Your task to perform on an android device: What's on my calendar tomorrow? Image 0: 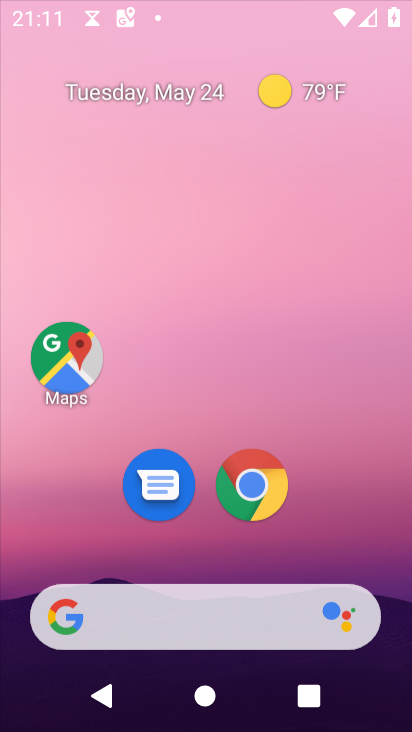
Step 0: press home button
Your task to perform on an android device: What's on my calendar tomorrow? Image 1: 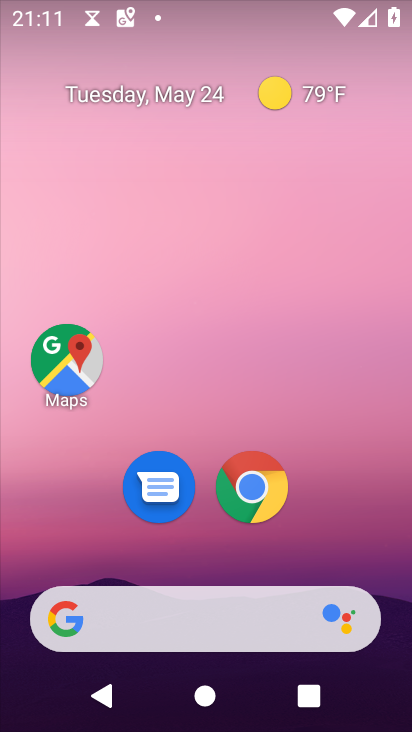
Step 1: drag from (334, 526) to (359, 9)
Your task to perform on an android device: What's on my calendar tomorrow? Image 2: 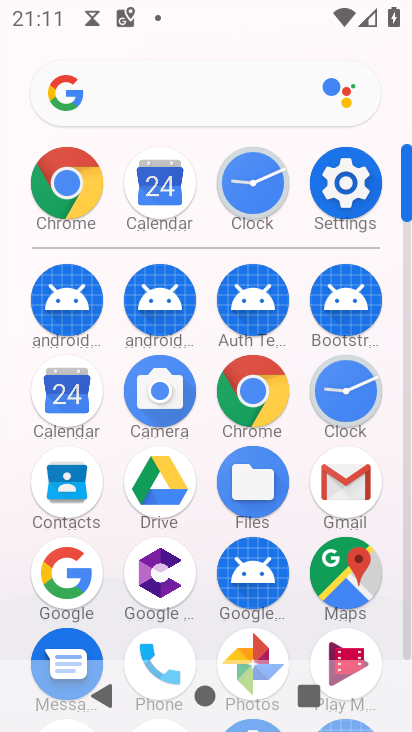
Step 2: click (66, 387)
Your task to perform on an android device: What's on my calendar tomorrow? Image 3: 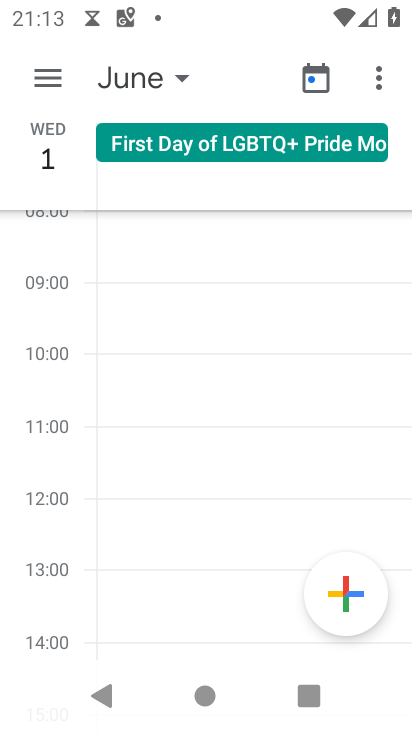
Step 3: click (181, 71)
Your task to perform on an android device: What's on my calendar tomorrow? Image 4: 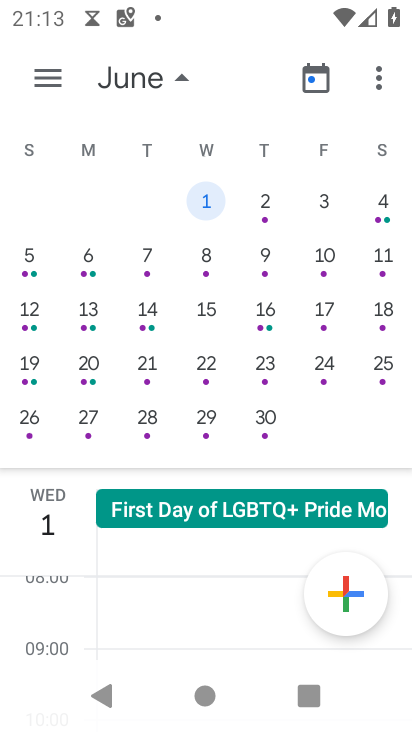
Step 4: drag from (332, 244) to (0, 236)
Your task to perform on an android device: What's on my calendar tomorrow? Image 5: 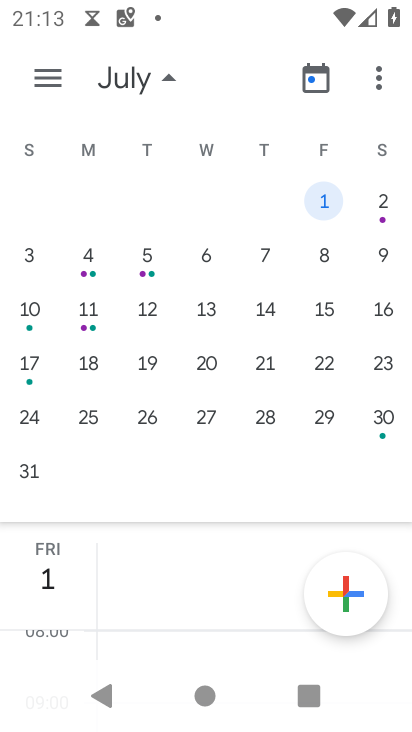
Step 5: drag from (10, 220) to (408, 266)
Your task to perform on an android device: What's on my calendar tomorrow? Image 6: 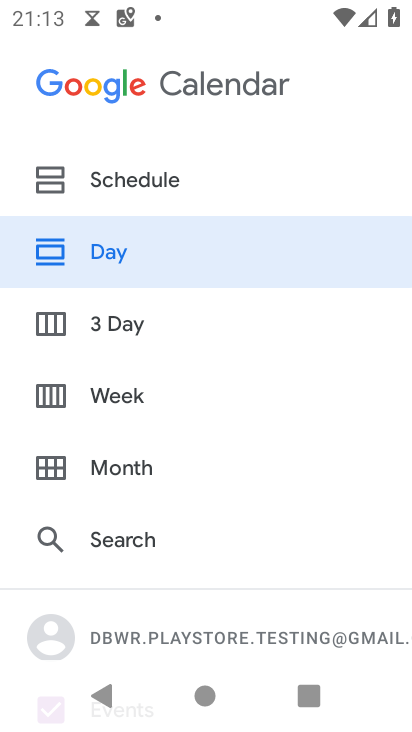
Step 6: drag from (342, 377) to (1, 451)
Your task to perform on an android device: What's on my calendar tomorrow? Image 7: 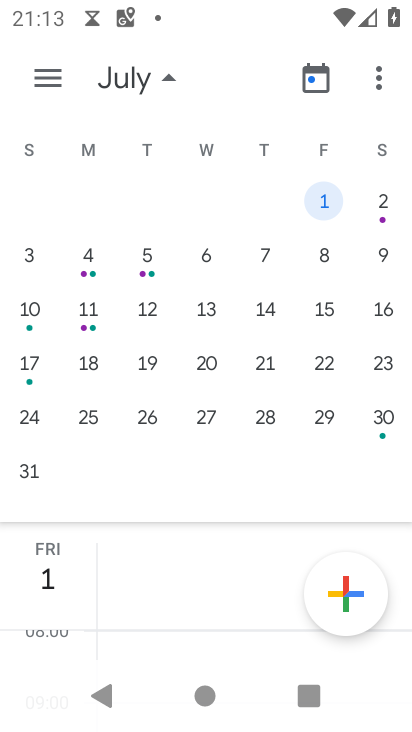
Step 7: drag from (116, 314) to (409, 311)
Your task to perform on an android device: What's on my calendar tomorrow? Image 8: 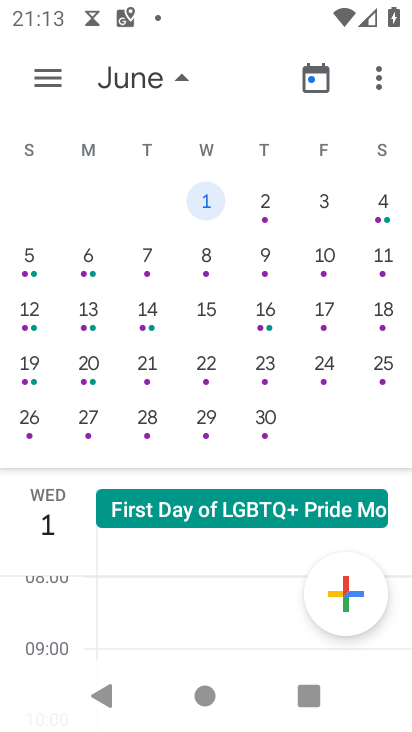
Step 8: click (10, 257)
Your task to perform on an android device: What's on my calendar tomorrow? Image 9: 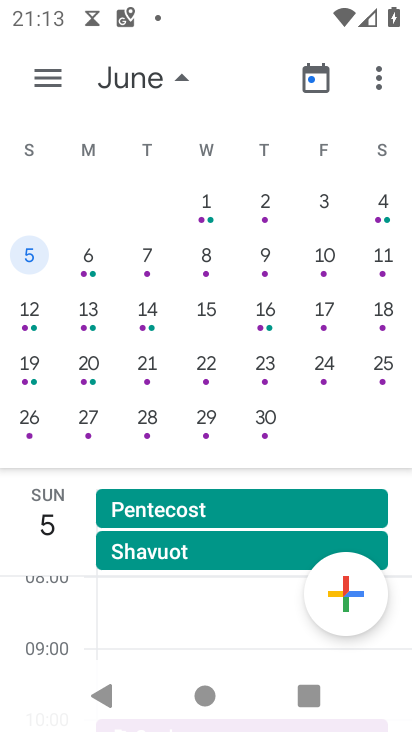
Step 9: drag from (52, 278) to (363, 236)
Your task to perform on an android device: What's on my calendar tomorrow? Image 10: 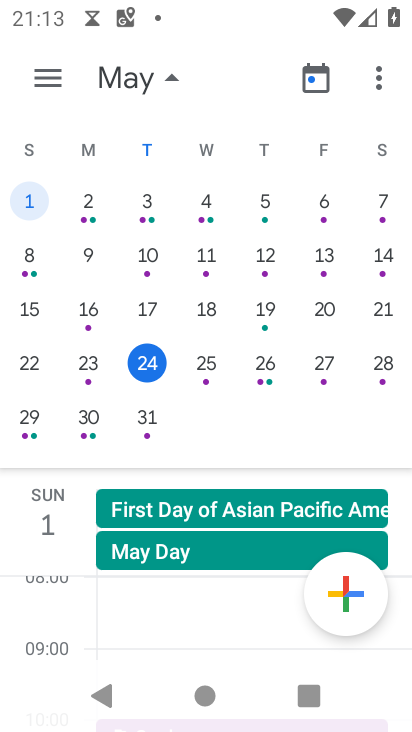
Step 10: click (156, 373)
Your task to perform on an android device: What's on my calendar tomorrow? Image 11: 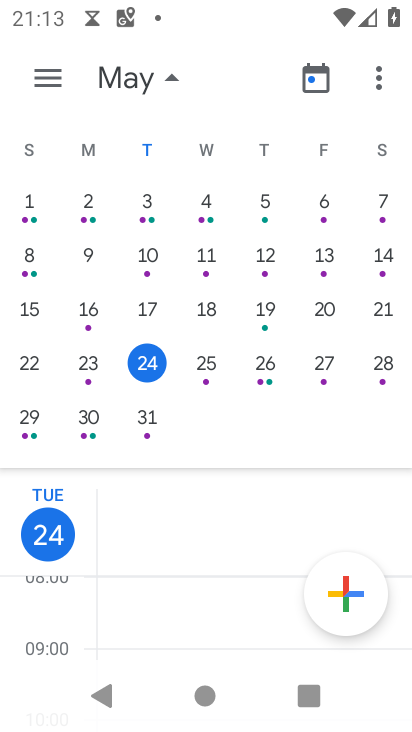
Step 11: click (199, 368)
Your task to perform on an android device: What's on my calendar tomorrow? Image 12: 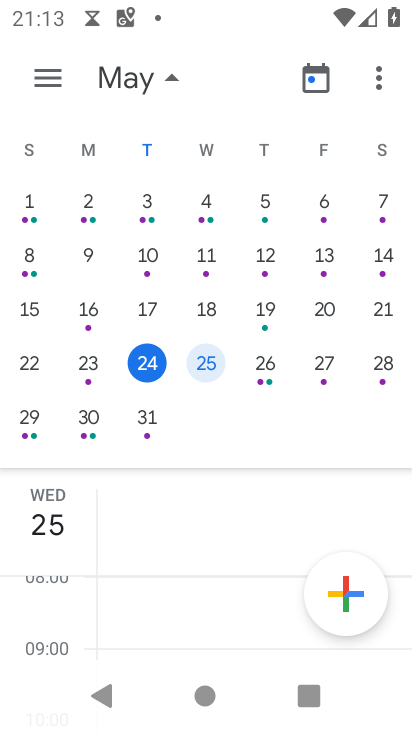
Step 12: click (241, 364)
Your task to perform on an android device: What's on my calendar tomorrow? Image 13: 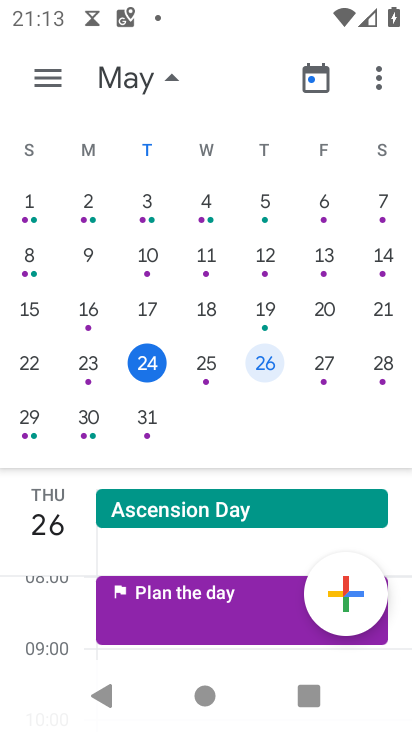
Step 13: click (170, 80)
Your task to perform on an android device: What's on my calendar tomorrow? Image 14: 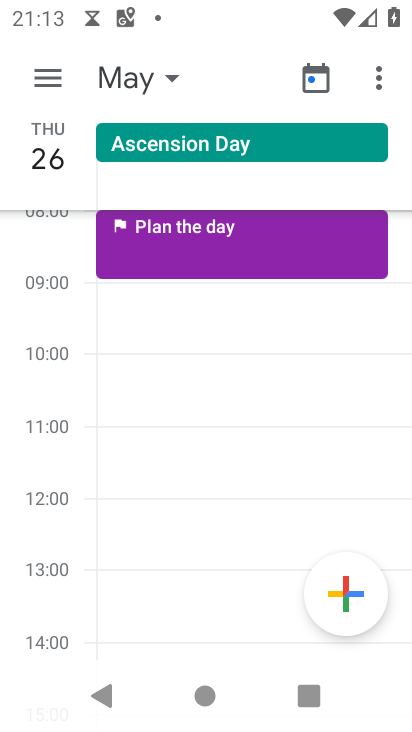
Step 14: task complete